Your task to perform on an android device: turn on javascript in the chrome app Image 0: 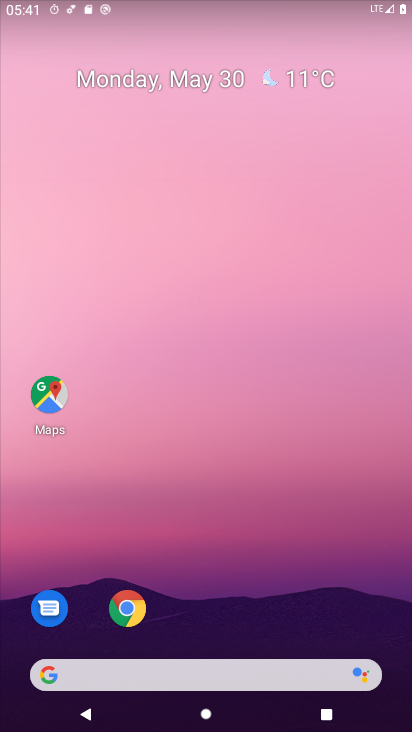
Step 0: click (132, 600)
Your task to perform on an android device: turn on javascript in the chrome app Image 1: 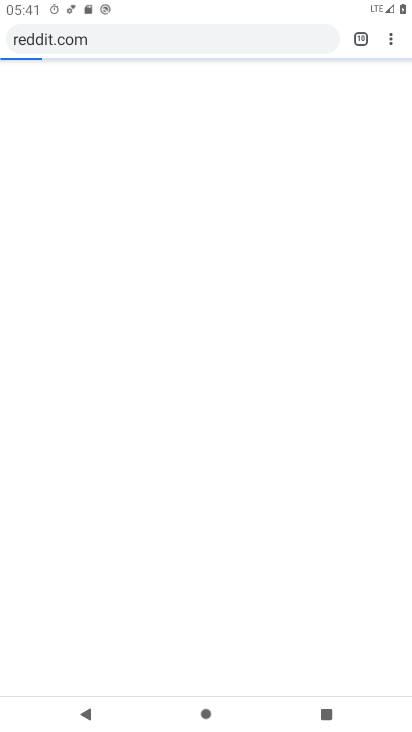
Step 1: click (381, 45)
Your task to perform on an android device: turn on javascript in the chrome app Image 2: 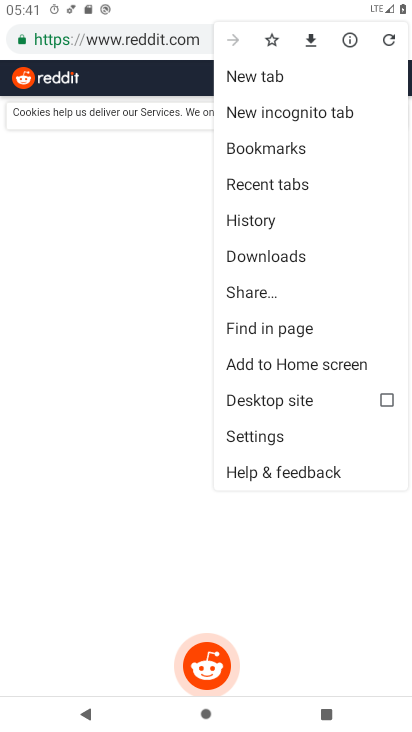
Step 2: click (282, 435)
Your task to perform on an android device: turn on javascript in the chrome app Image 3: 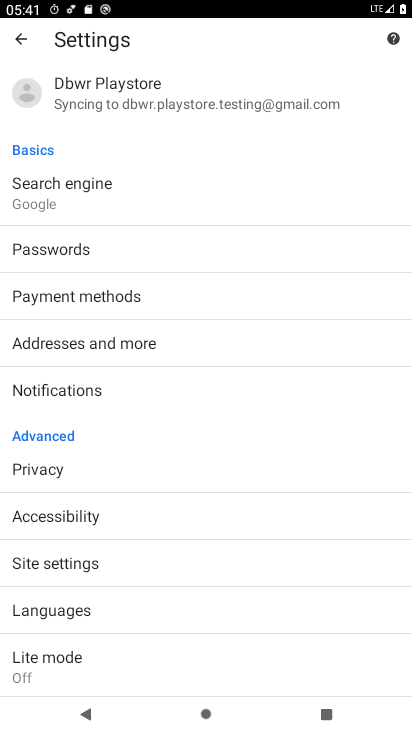
Step 3: click (135, 573)
Your task to perform on an android device: turn on javascript in the chrome app Image 4: 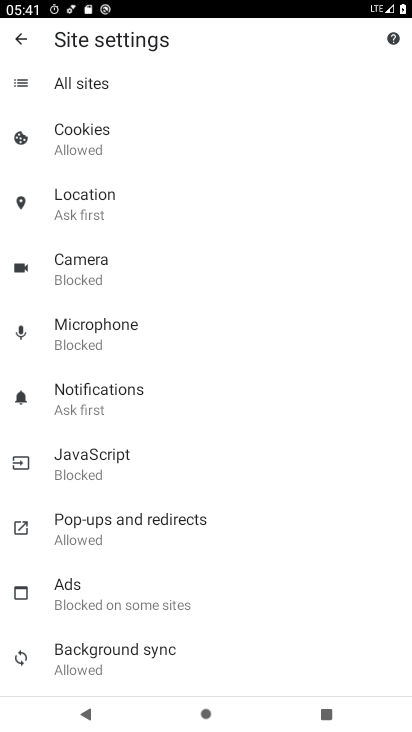
Step 4: click (169, 461)
Your task to perform on an android device: turn on javascript in the chrome app Image 5: 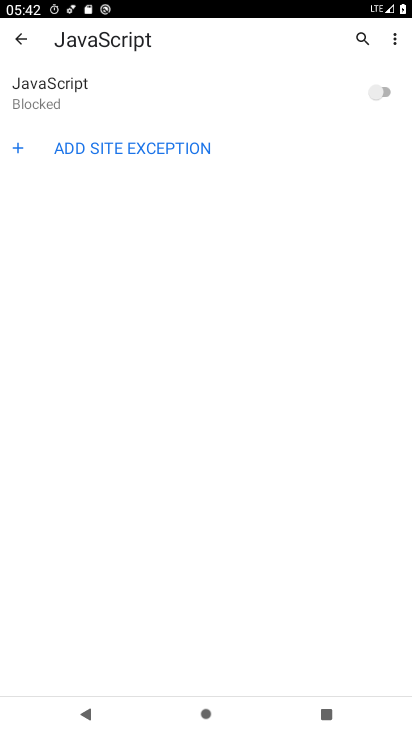
Step 5: click (396, 72)
Your task to perform on an android device: turn on javascript in the chrome app Image 6: 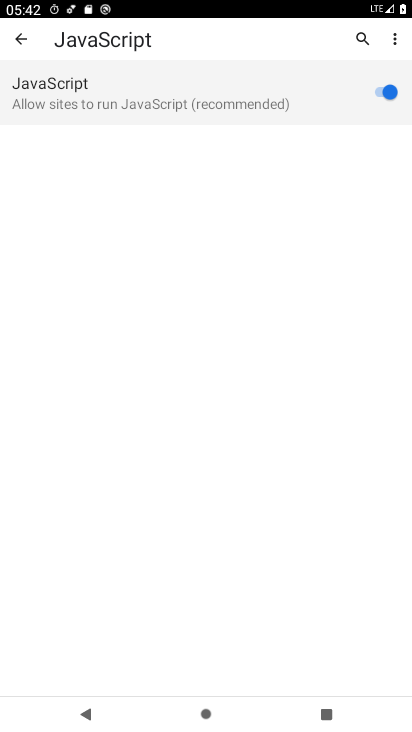
Step 6: click (380, 99)
Your task to perform on an android device: turn on javascript in the chrome app Image 7: 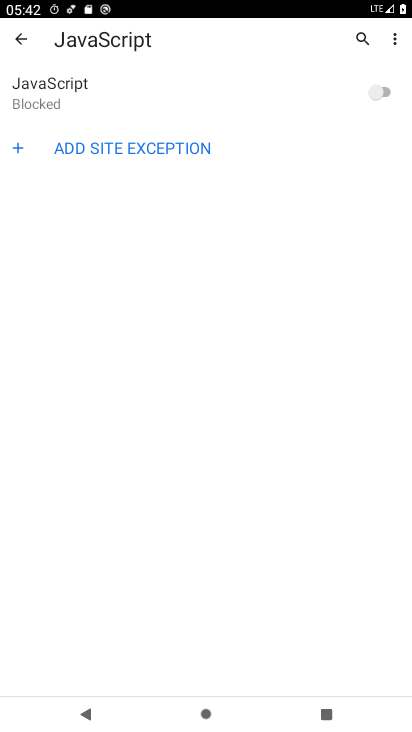
Step 7: click (380, 106)
Your task to perform on an android device: turn on javascript in the chrome app Image 8: 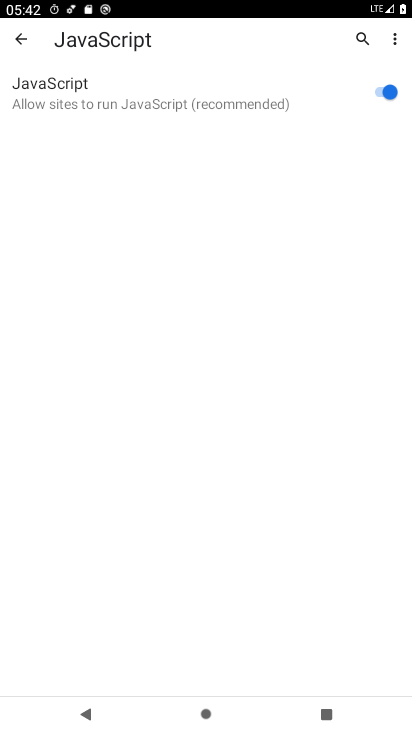
Step 8: task complete